Your task to perform on an android device: Go to sound settings Image 0: 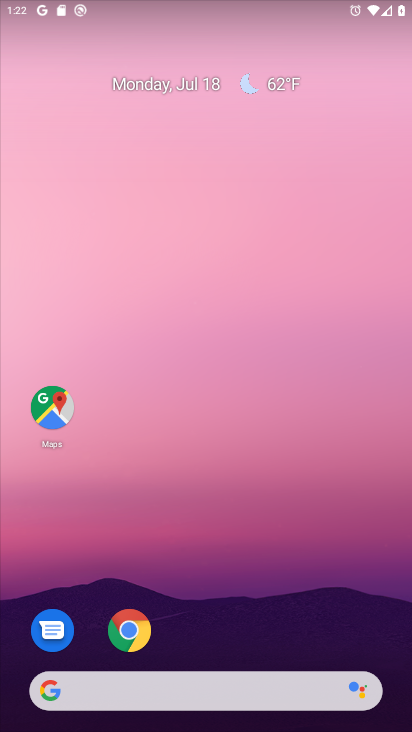
Step 0: drag from (216, 670) to (189, 364)
Your task to perform on an android device: Go to sound settings Image 1: 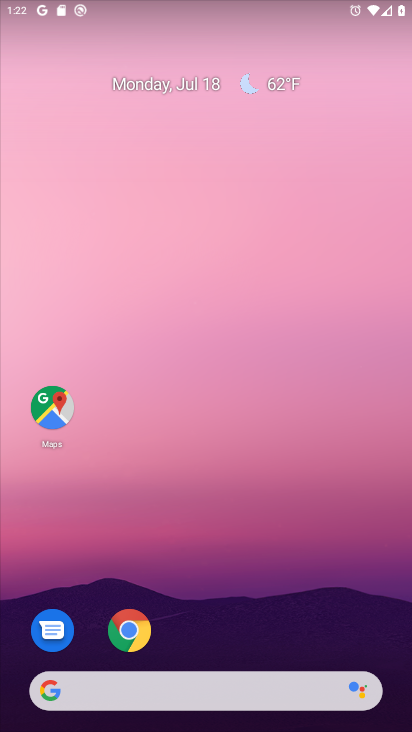
Step 1: drag from (213, 557) to (207, 226)
Your task to perform on an android device: Go to sound settings Image 2: 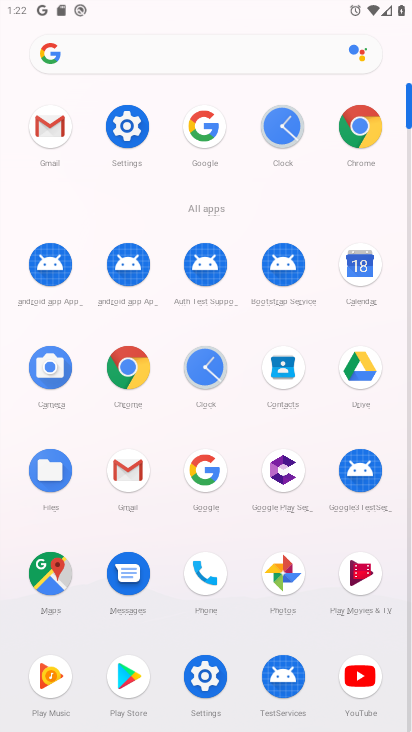
Step 2: click (122, 123)
Your task to perform on an android device: Go to sound settings Image 3: 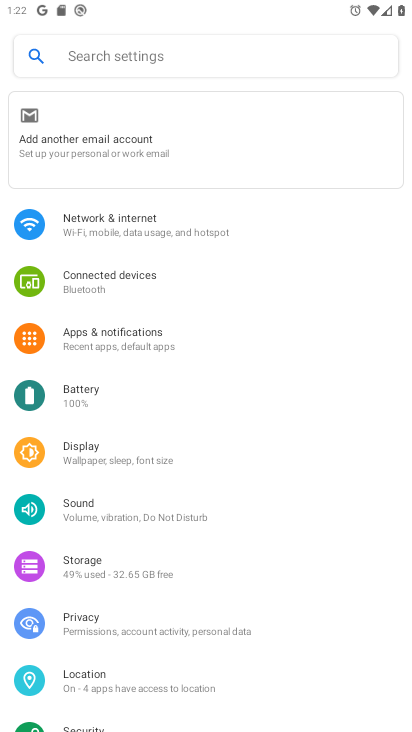
Step 3: click (87, 513)
Your task to perform on an android device: Go to sound settings Image 4: 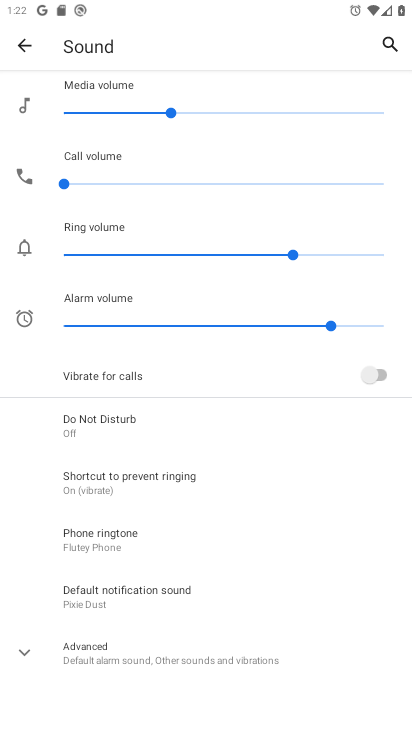
Step 4: click (133, 649)
Your task to perform on an android device: Go to sound settings Image 5: 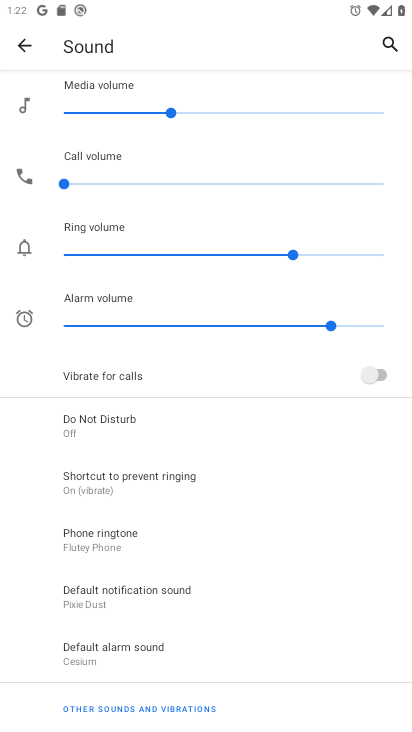
Step 5: task complete